Your task to perform on an android device: Go to eBay Image 0: 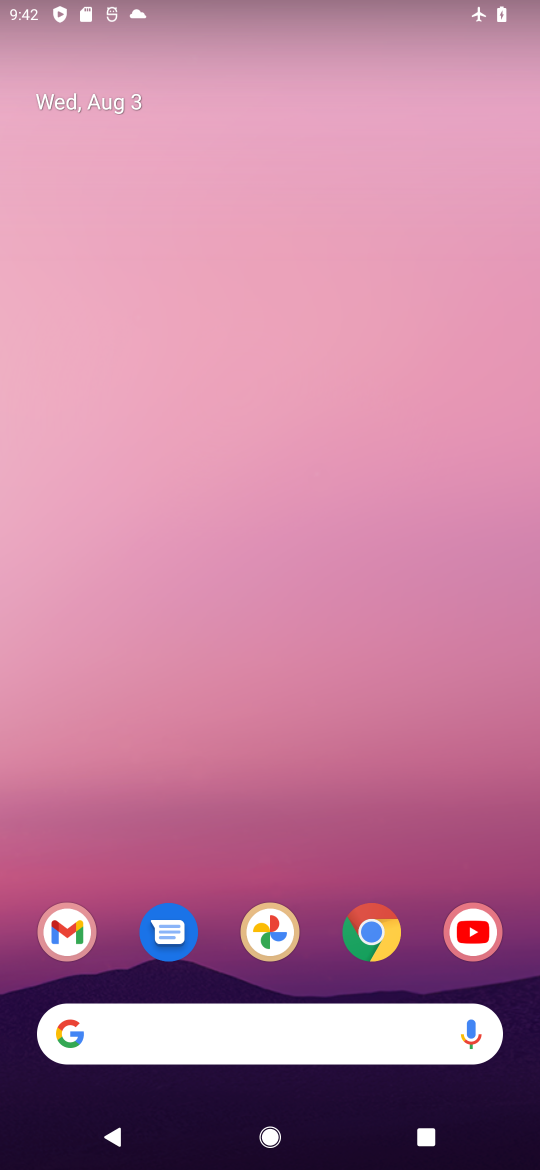
Step 0: click (370, 934)
Your task to perform on an android device: Go to eBay Image 1: 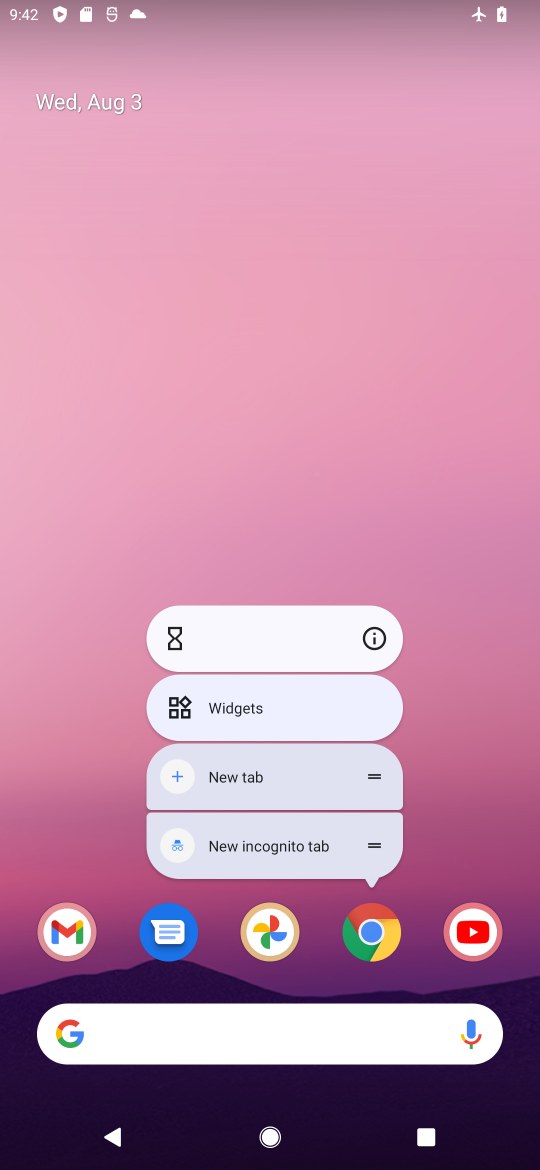
Step 1: click (370, 934)
Your task to perform on an android device: Go to eBay Image 2: 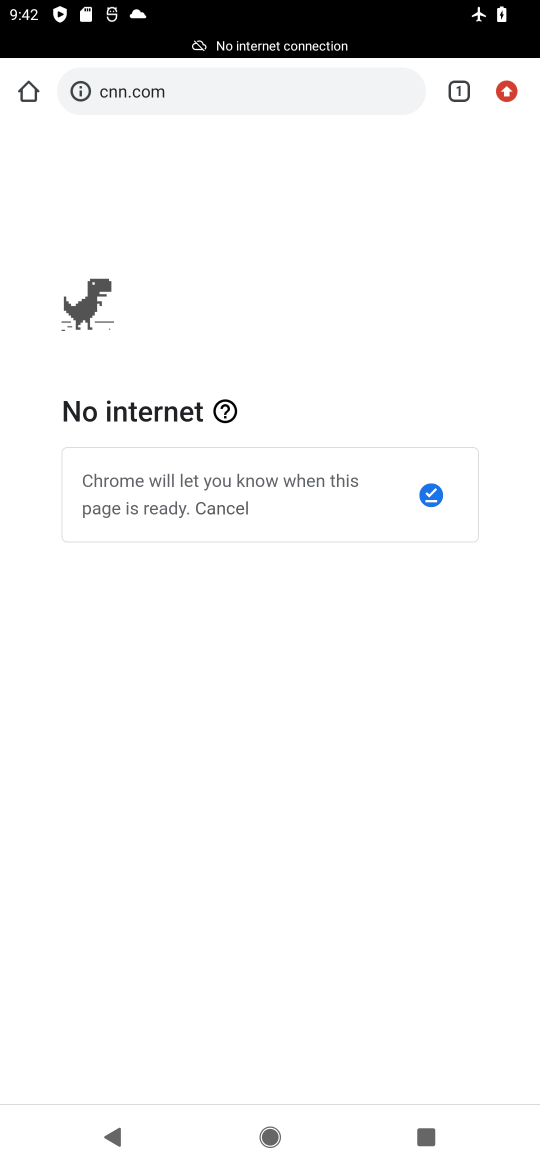
Step 2: click (341, 96)
Your task to perform on an android device: Go to eBay Image 3: 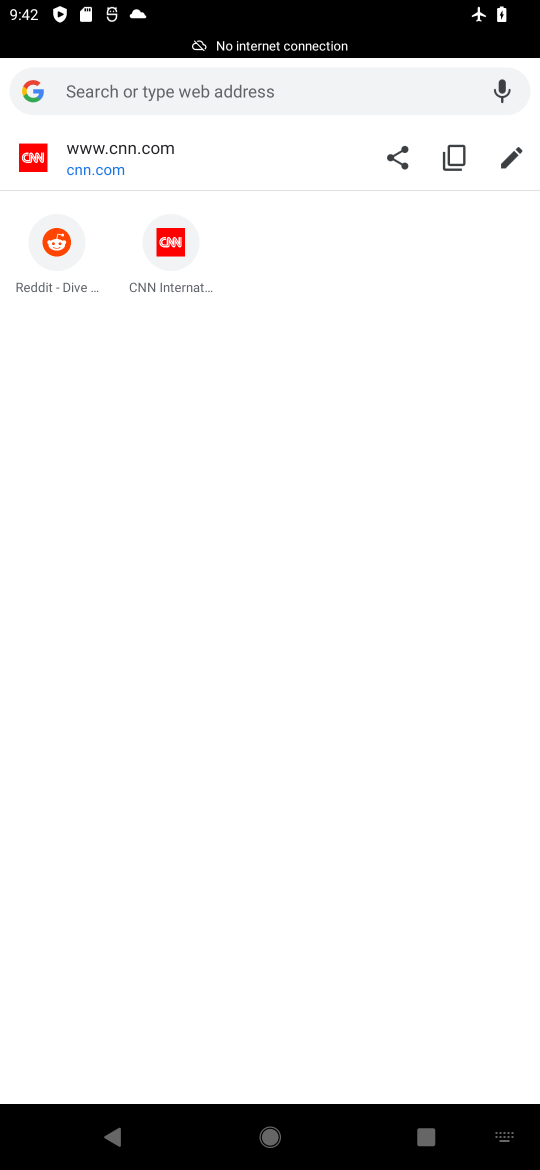
Step 3: type "eBay"
Your task to perform on an android device: Go to eBay Image 4: 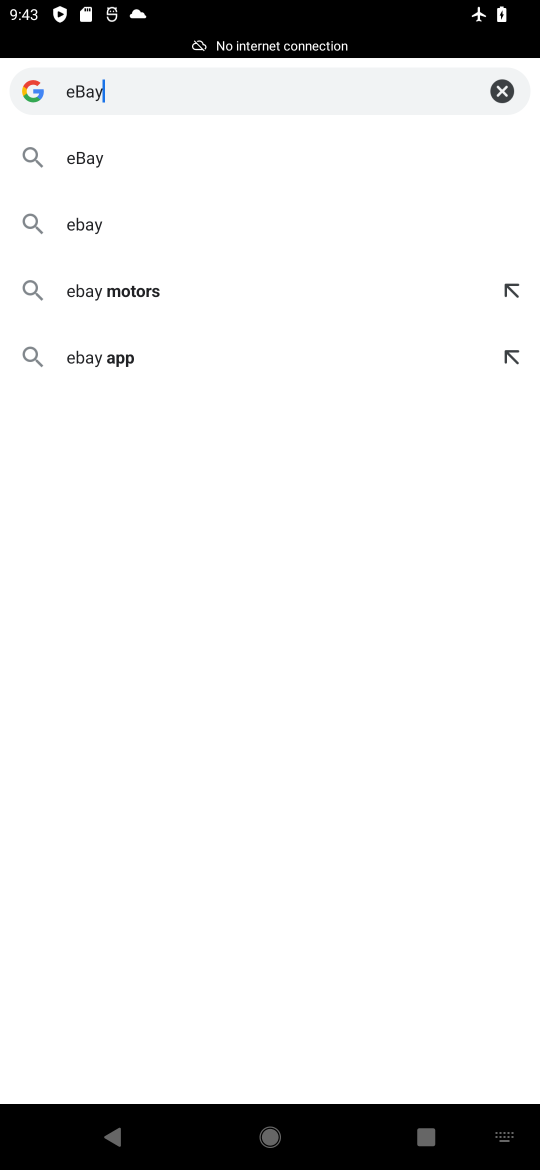
Step 4: click (212, 168)
Your task to perform on an android device: Go to eBay Image 5: 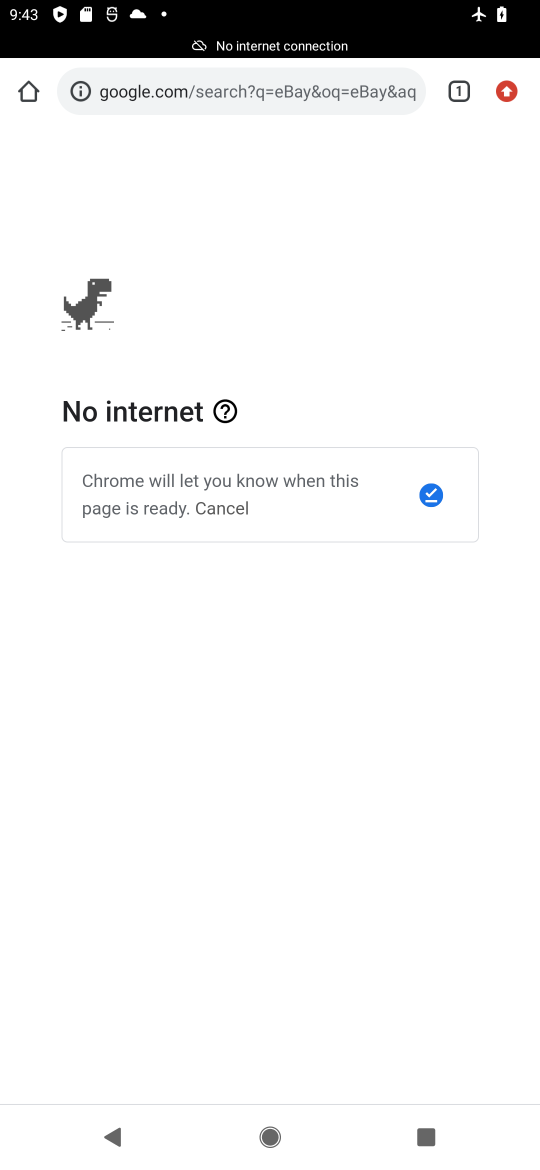
Step 5: task complete